Your task to perform on an android device: empty trash in google photos Image 0: 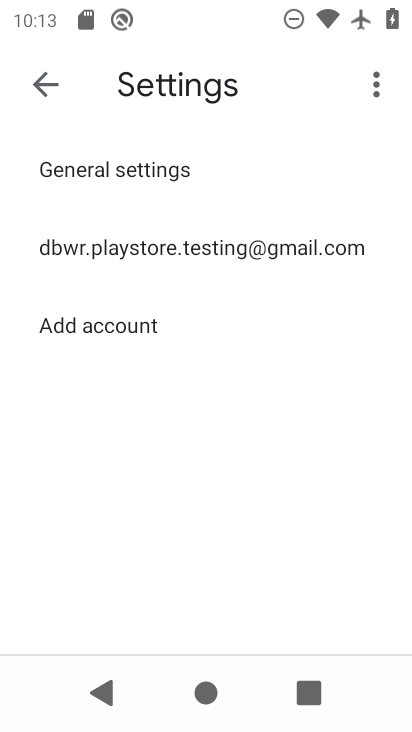
Step 0: press home button
Your task to perform on an android device: empty trash in google photos Image 1: 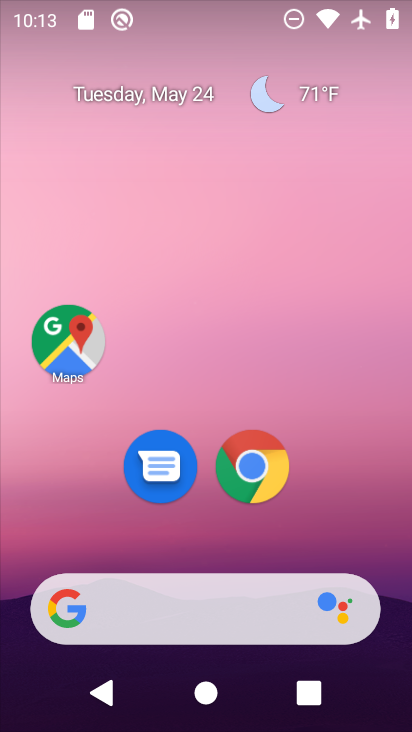
Step 1: drag from (182, 540) to (171, 14)
Your task to perform on an android device: empty trash in google photos Image 2: 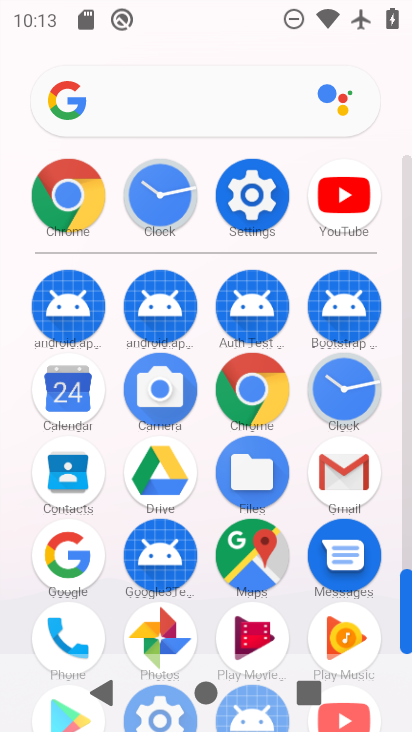
Step 2: drag from (200, 529) to (170, 179)
Your task to perform on an android device: empty trash in google photos Image 3: 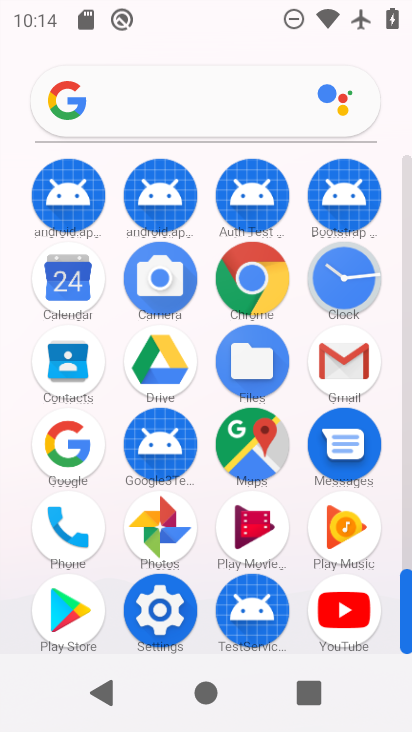
Step 3: click (160, 536)
Your task to perform on an android device: empty trash in google photos Image 4: 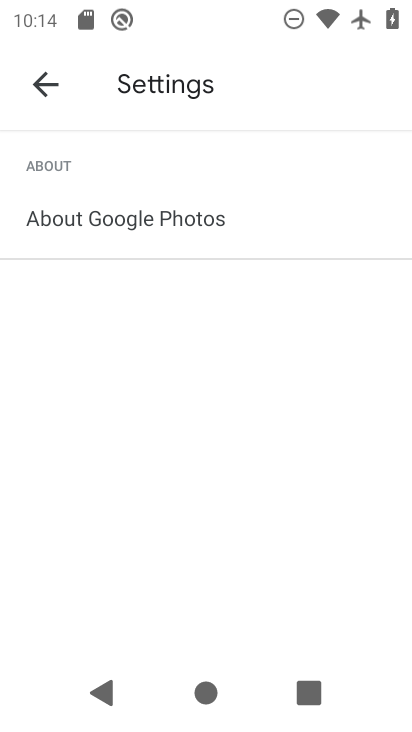
Step 4: click (58, 84)
Your task to perform on an android device: empty trash in google photos Image 5: 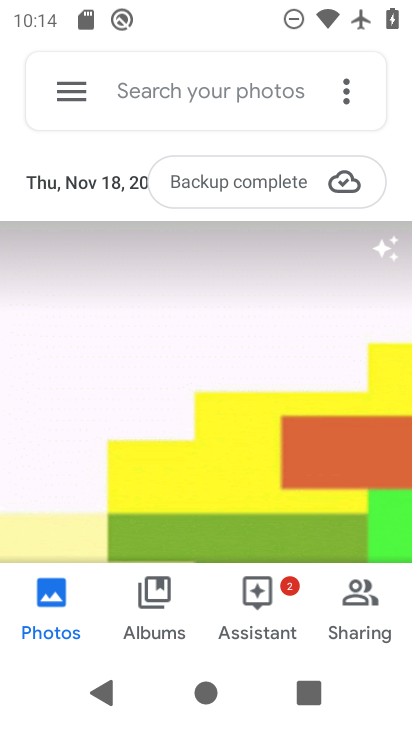
Step 5: click (57, 113)
Your task to perform on an android device: empty trash in google photos Image 6: 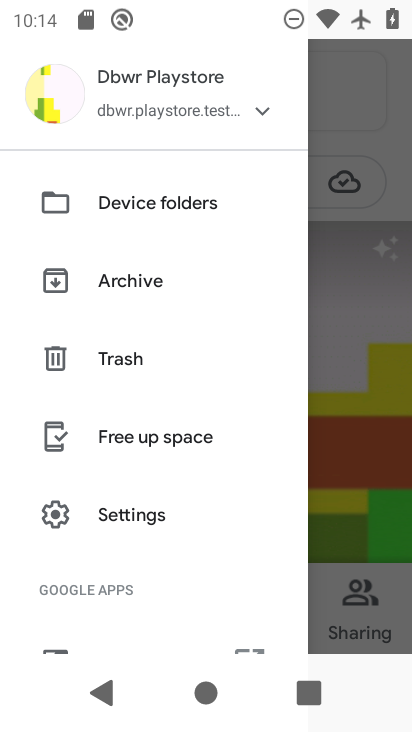
Step 6: click (114, 364)
Your task to perform on an android device: empty trash in google photos Image 7: 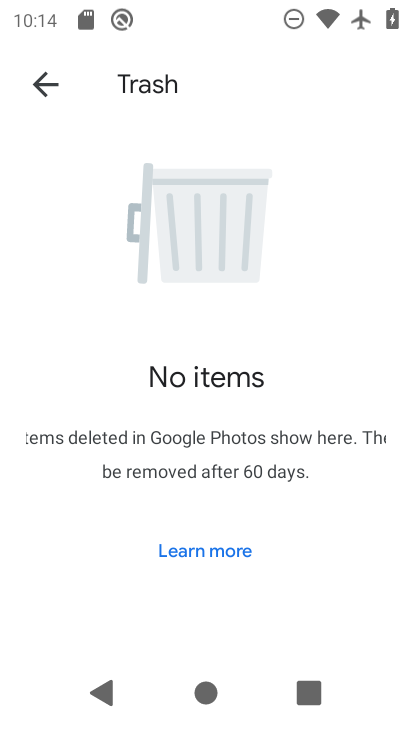
Step 7: task complete